Your task to perform on an android device: see tabs open on other devices in the chrome app Image 0: 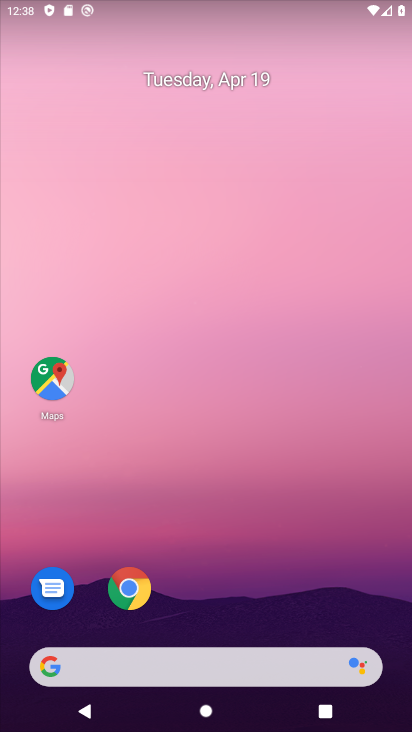
Step 0: drag from (224, 190) to (213, 56)
Your task to perform on an android device: see tabs open on other devices in the chrome app Image 1: 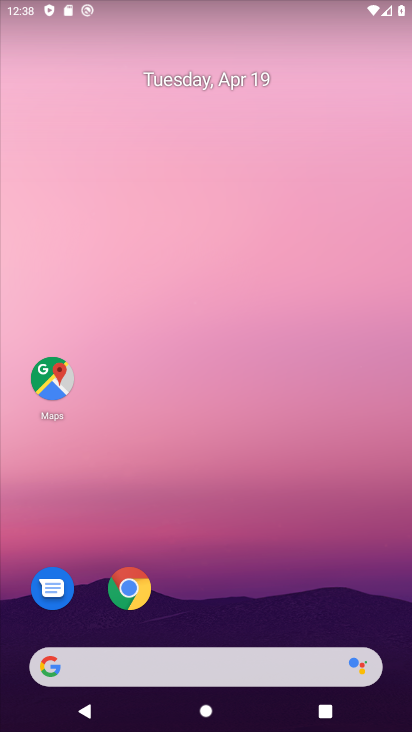
Step 1: drag from (329, 532) to (319, 9)
Your task to perform on an android device: see tabs open on other devices in the chrome app Image 2: 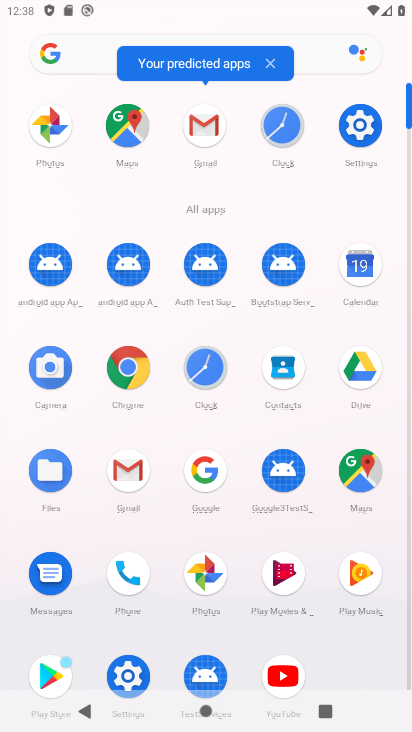
Step 2: drag from (388, 666) to (344, 354)
Your task to perform on an android device: see tabs open on other devices in the chrome app Image 3: 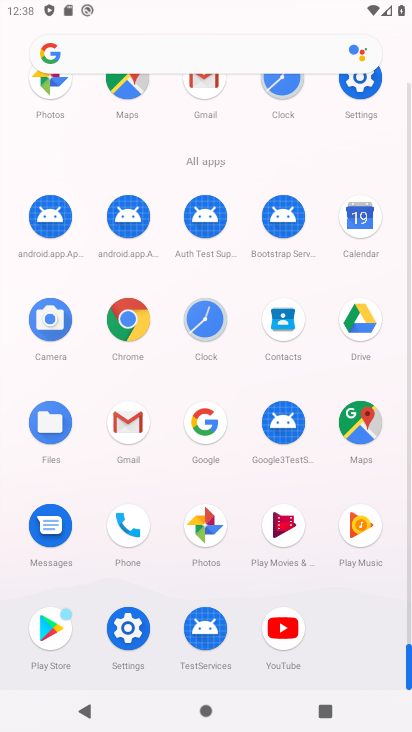
Step 3: click (135, 308)
Your task to perform on an android device: see tabs open on other devices in the chrome app Image 4: 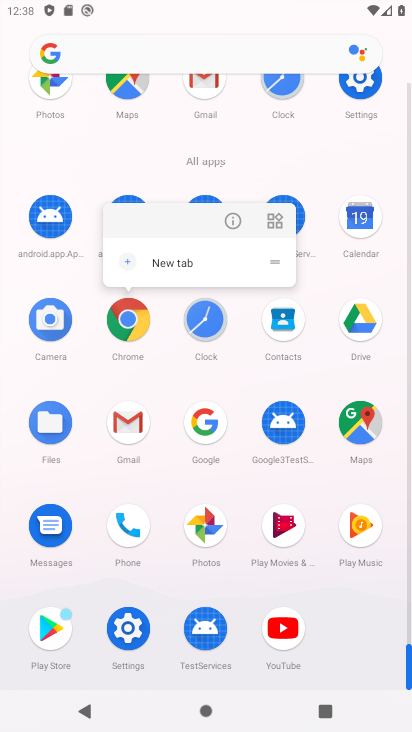
Step 4: click (135, 306)
Your task to perform on an android device: see tabs open on other devices in the chrome app Image 5: 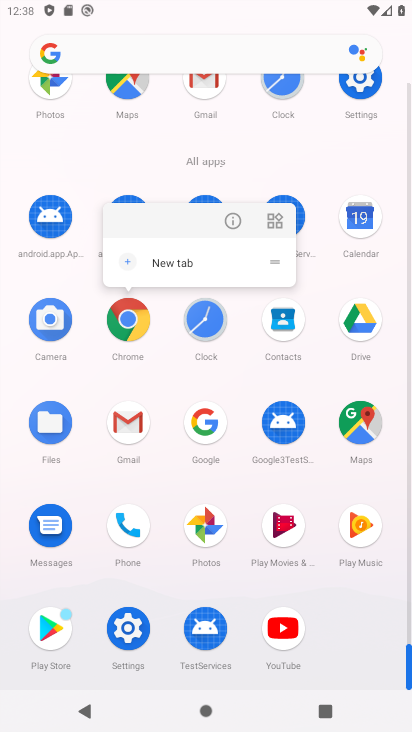
Step 5: click (135, 305)
Your task to perform on an android device: see tabs open on other devices in the chrome app Image 6: 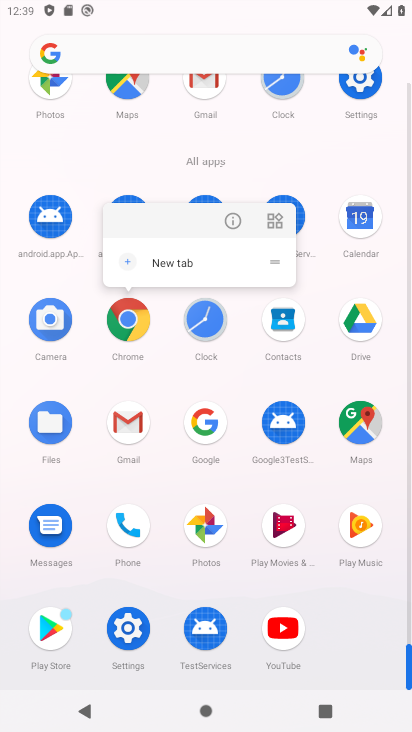
Step 6: click (135, 306)
Your task to perform on an android device: see tabs open on other devices in the chrome app Image 7: 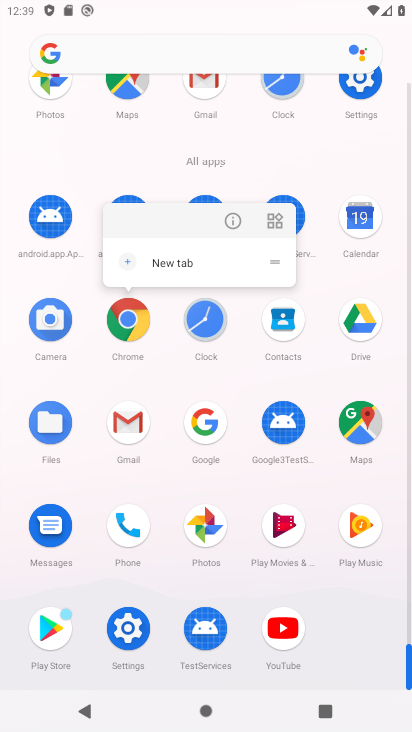
Step 7: click (142, 324)
Your task to perform on an android device: see tabs open on other devices in the chrome app Image 8: 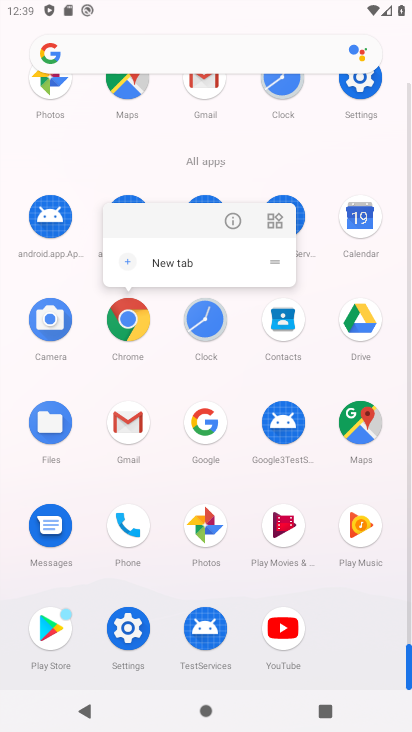
Step 8: click (134, 339)
Your task to perform on an android device: see tabs open on other devices in the chrome app Image 9: 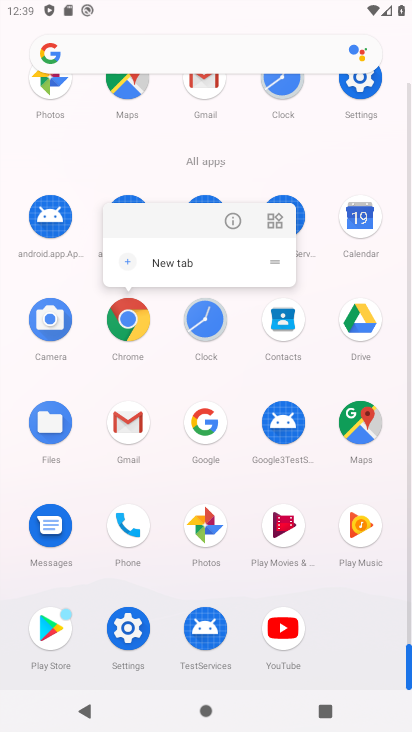
Step 9: click (134, 340)
Your task to perform on an android device: see tabs open on other devices in the chrome app Image 10: 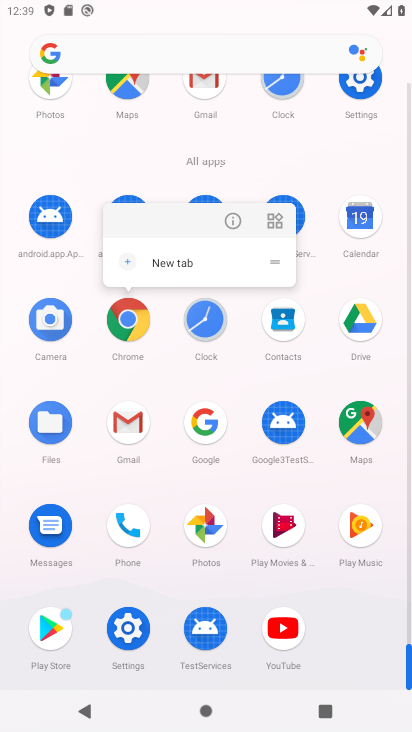
Step 10: click (134, 340)
Your task to perform on an android device: see tabs open on other devices in the chrome app Image 11: 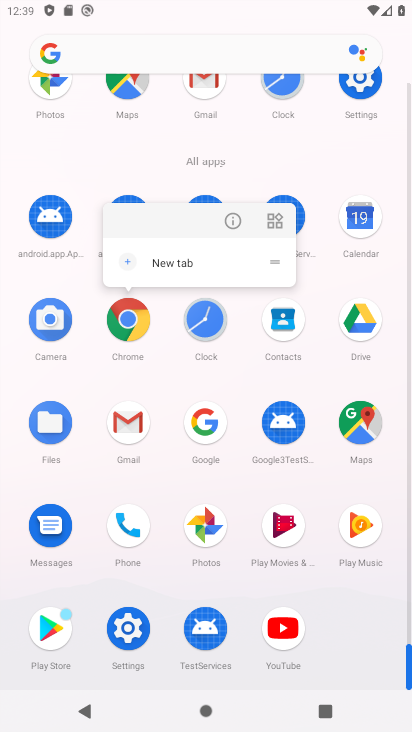
Step 11: click (134, 340)
Your task to perform on an android device: see tabs open on other devices in the chrome app Image 12: 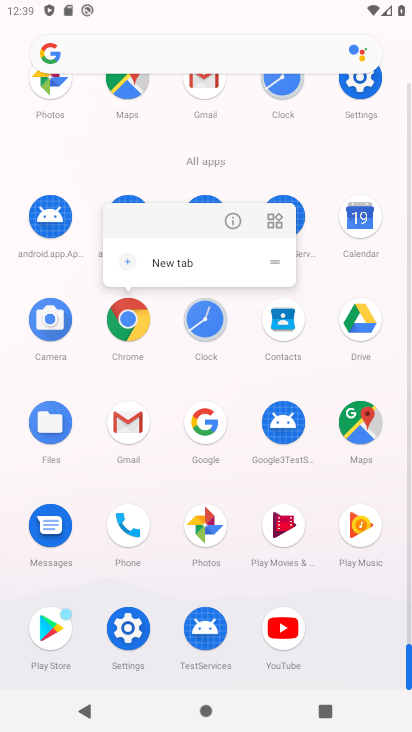
Step 12: click (134, 340)
Your task to perform on an android device: see tabs open on other devices in the chrome app Image 13: 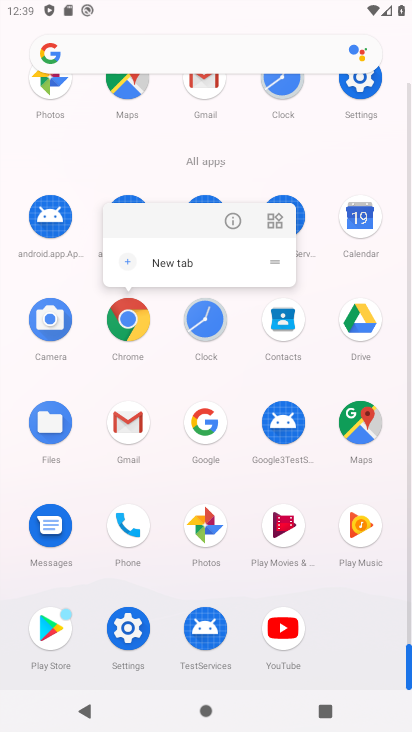
Step 13: click (134, 340)
Your task to perform on an android device: see tabs open on other devices in the chrome app Image 14: 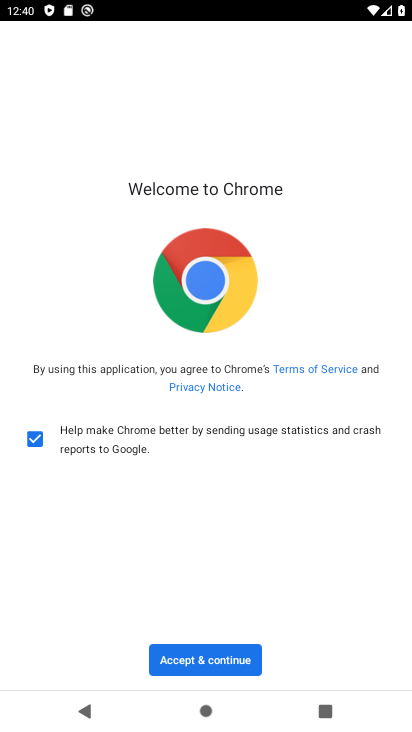
Step 14: drag from (338, 625) to (292, 249)
Your task to perform on an android device: see tabs open on other devices in the chrome app Image 15: 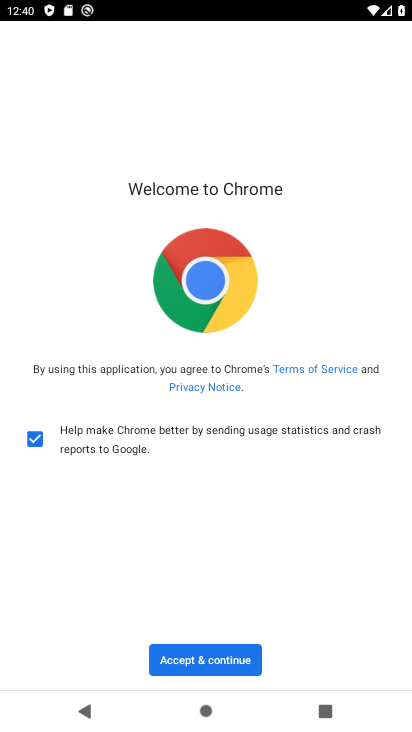
Step 15: click (215, 664)
Your task to perform on an android device: see tabs open on other devices in the chrome app Image 16: 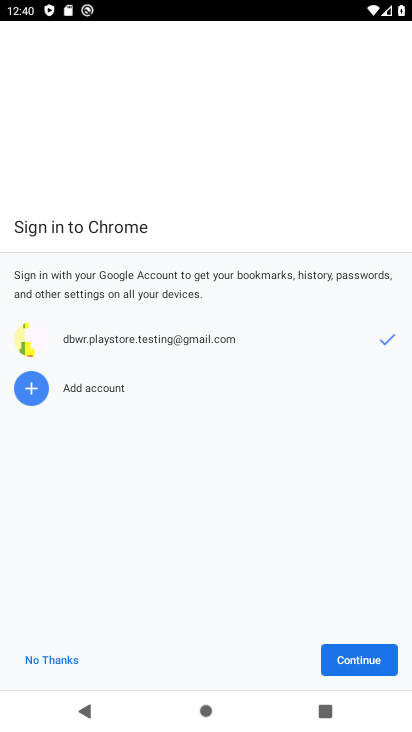
Step 16: click (44, 662)
Your task to perform on an android device: see tabs open on other devices in the chrome app Image 17: 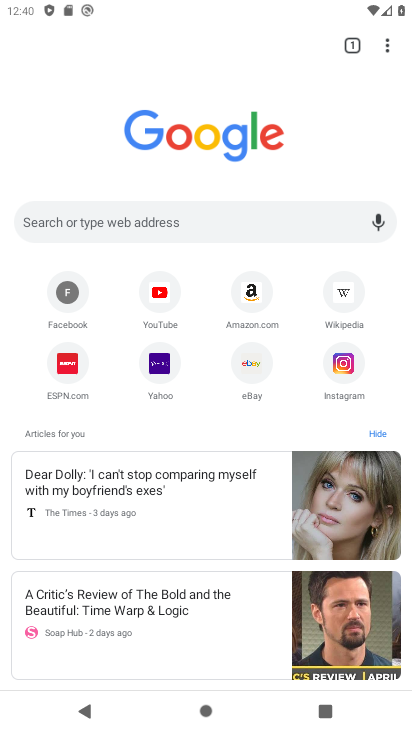
Step 17: drag from (386, 37) to (219, 218)
Your task to perform on an android device: see tabs open on other devices in the chrome app Image 18: 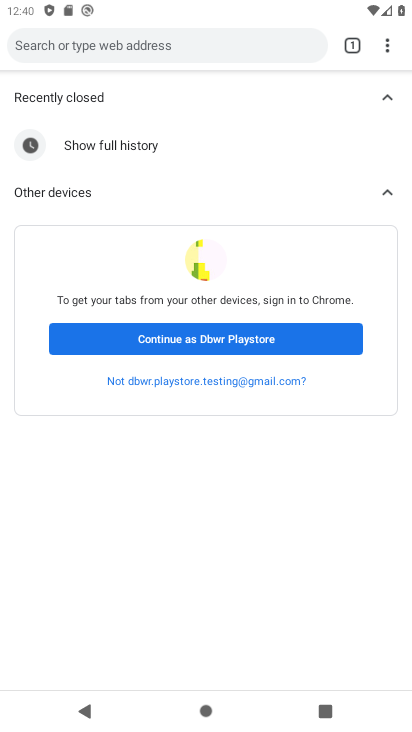
Step 18: drag from (161, 561) to (114, 288)
Your task to perform on an android device: see tabs open on other devices in the chrome app Image 19: 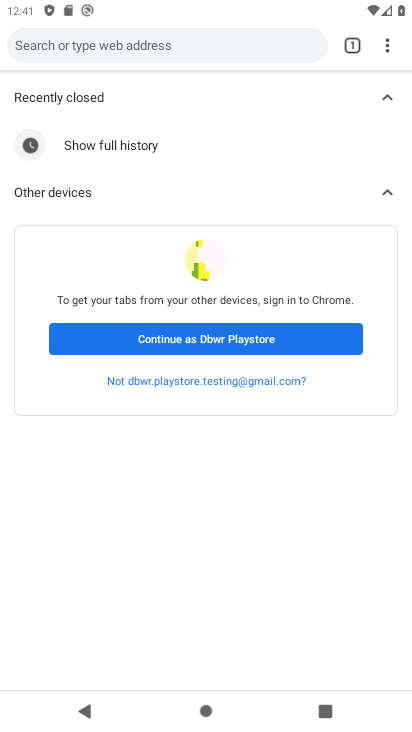
Step 19: click (108, 155)
Your task to perform on an android device: see tabs open on other devices in the chrome app Image 20: 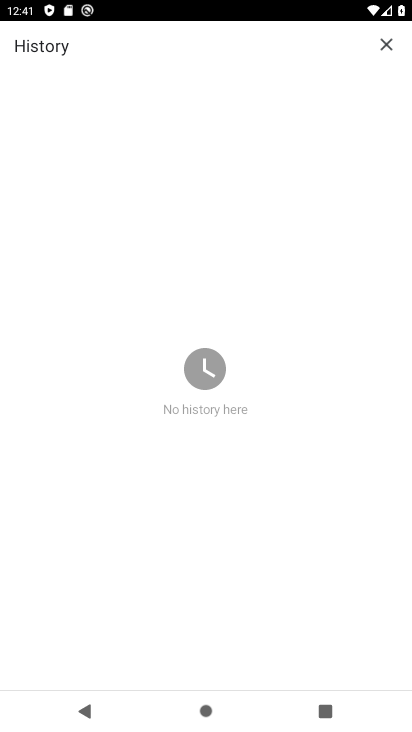
Step 20: task complete